Your task to perform on an android device: toggle javascript in the chrome app Image 0: 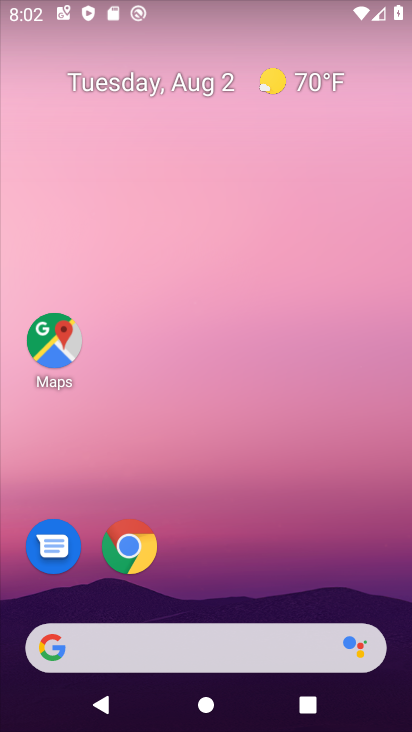
Step 0: click (127, 553)
Your task to perform on an android device: toggle javascript in the chrome app Image 1: 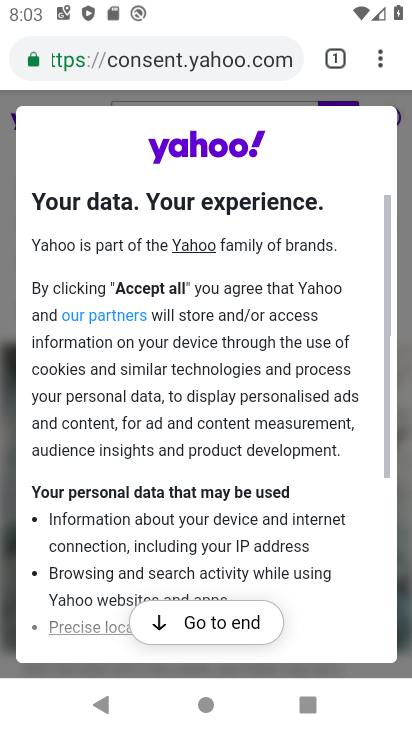
Step 1: click (382, 63)
Your task to perform on an android device: toggle javascript in the chrome app Image 2: 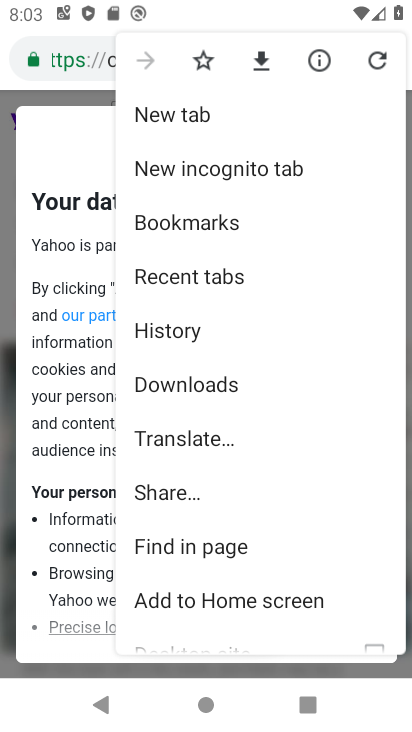
Step 2: drag from (194, 561) to (208, 318)
Your task to perform on an android device: toggle javascript in the chrome app Image 3: 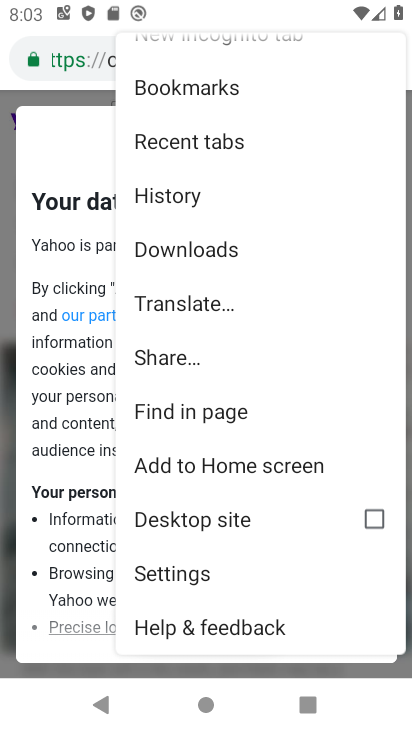
Step 3: click (166, 575)
Your task to perform on an android device: toggle javascript in the chrome app Image 4: 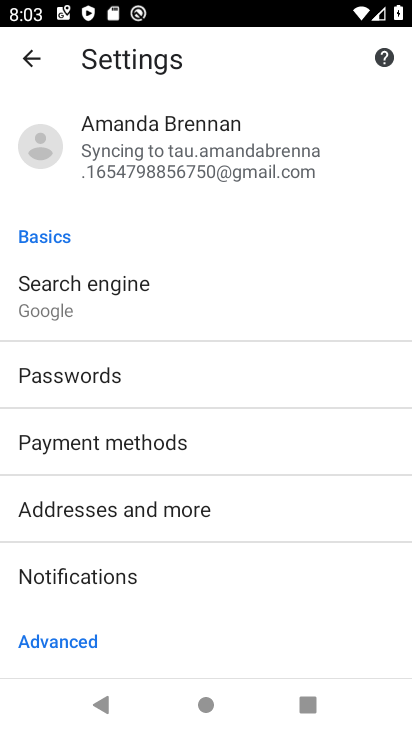
Step 4: drag from (143, 589) to (184, 271)
Your task to perform on an android device: toggle javascript in the chrome app Image 5: 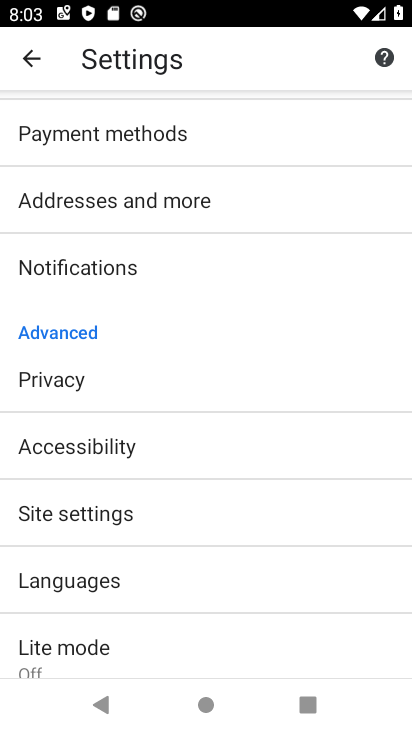
Step 5: click (87, 522)
Your task to perform on an android device: toggle javascript in the chrome app Image 6: 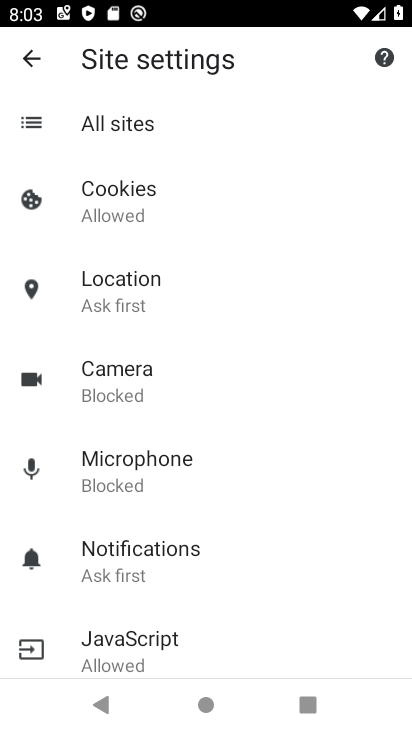
Step 6: click (139, 647)
Your task to perform on an android device: toggle javascript in the chrome app Image 7: 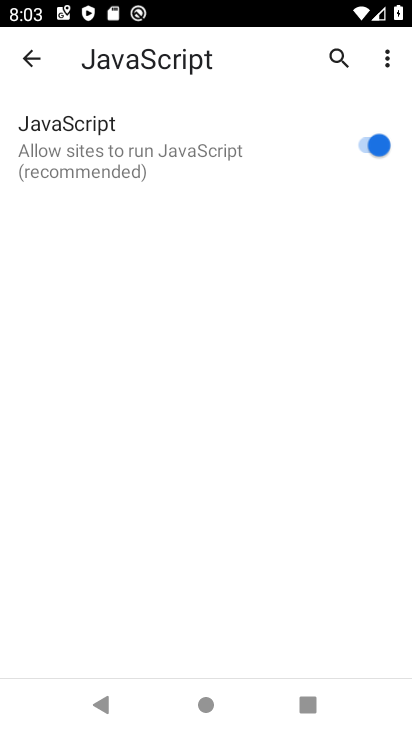
Step 7: click (335, 140)
Your task to perform on an android device: toggle javascript in the chrome app Image 8: 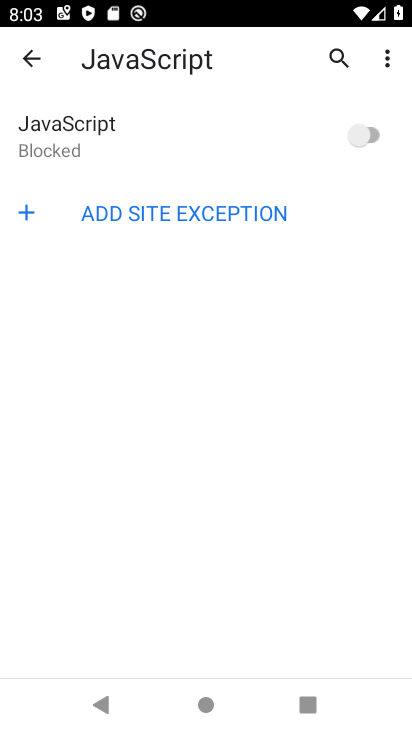
Step 8: task complete